Your task to perform on an android device: toggle improve location accuracy Image 0: 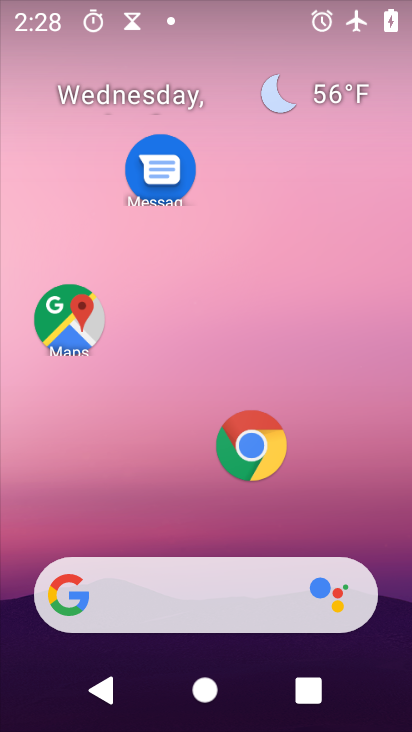
Step 0: drag from (202, 521) to (292, 30)
Your task to perform on an android device: toggle improve location accuracy Image 1: 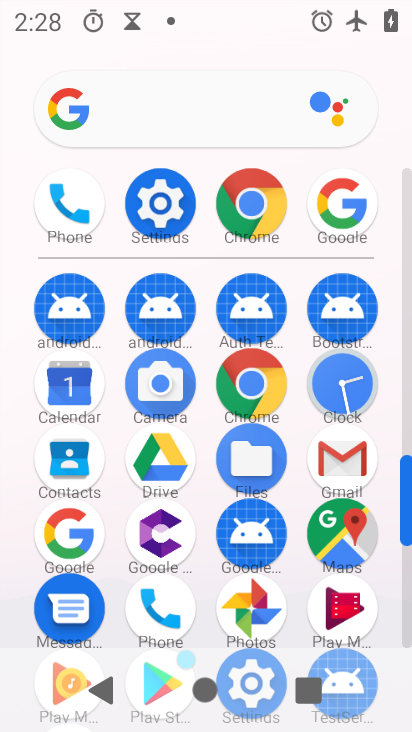
Step 1: drag from (202, 262) to (222, 109)
Your task to perform on an android device: toggle improve location accuracy Image 2: 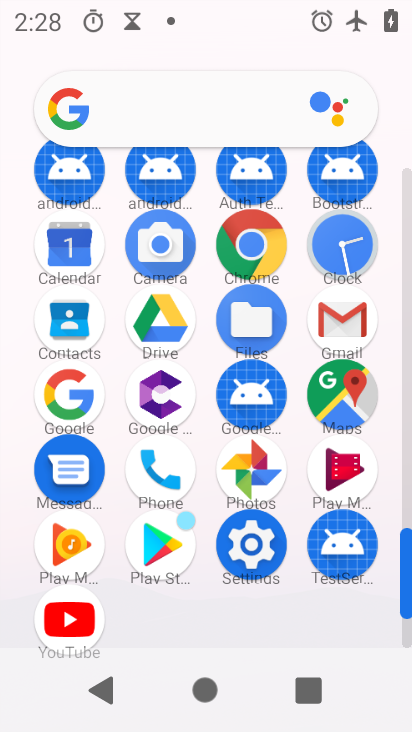
Step 2: click (252, 567)
Your task to perform on an android device: toggle improve location accuracy Image 3: 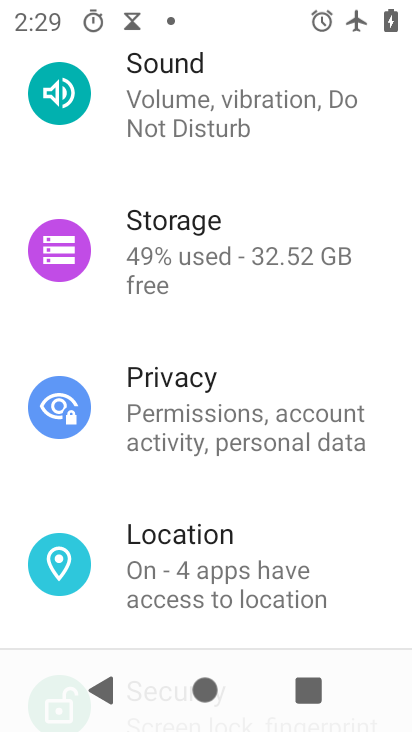
Step 3: click (210, 556)
Your task to perform on an android device: toggle improve location accuracy Image 4: 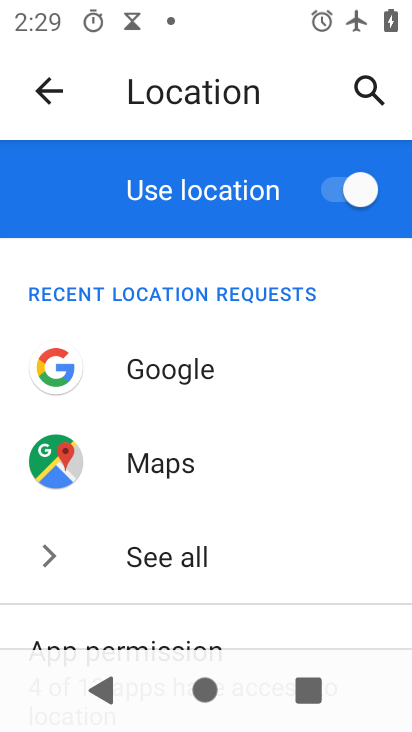
Step 4: drag from (254, 492) to (276, 106)
Your task to perform on an android device: toggle improve location accuracy Image 5: 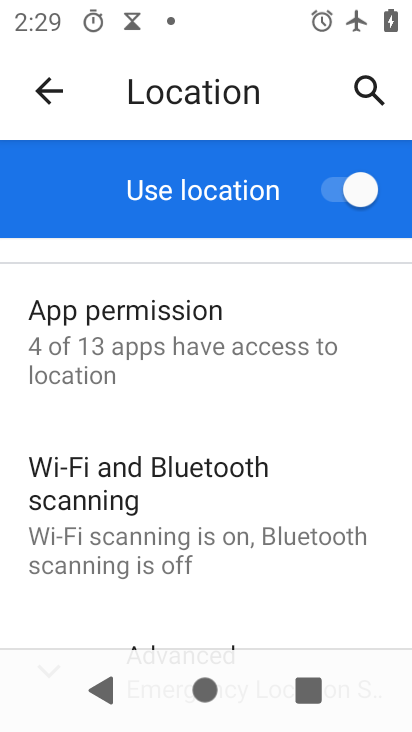
Step 5: drag from (226, 570) to (275, 145)
Your task to perform on an android device: toggle improve location accuracy Image 6: 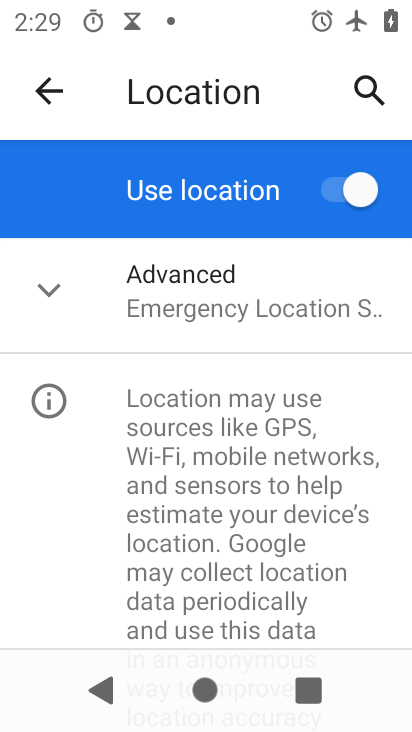
Step 6: click (174, 302)
Your task to perform on an android device: toggle improve location accuracy Image 7: 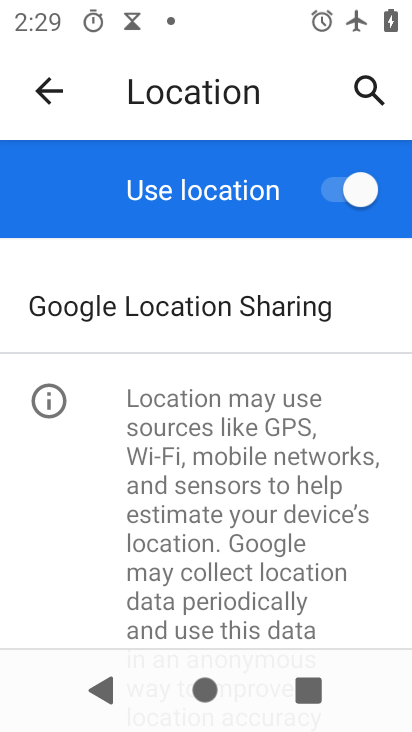
Step 7: drag from (179, 478) to (219, 139)
Your task to perform on an android device: toggle improve location accuracy Image 8: 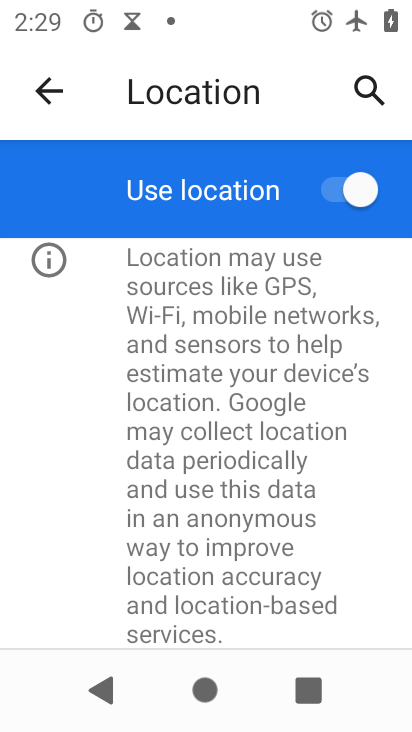
Step 8: drag from (200, 548) to (209, 171)
Your task to perform on an android device: toggle improve location accuracy Image 9: 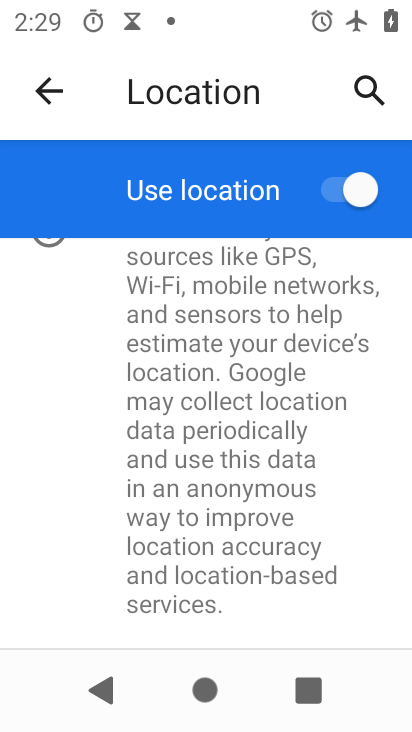
Step 9: drag from (154, 562) to (207, 185)
Your task to perform on an android device: toggle improve location accuracy Image 10: 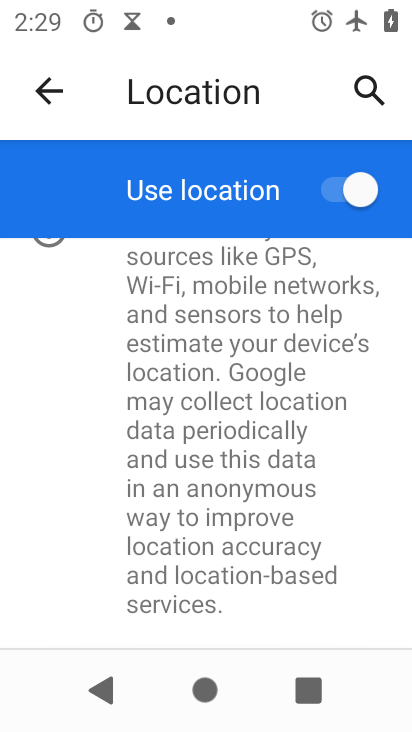
Step 10: drag from (264, 322) to (260, 673)
Your task to perform on an android device: toggle improve location accuracy Image 11: 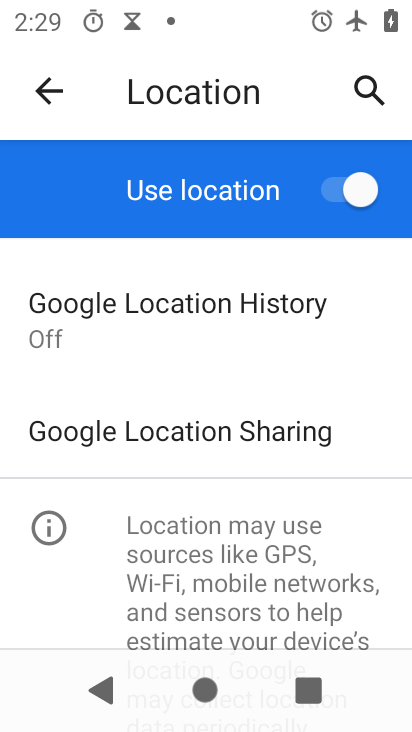
Step 11: drag from (239, 422) to (239, 645)
Your task to perform on an android device: toggle improve location accuracy Image 12: 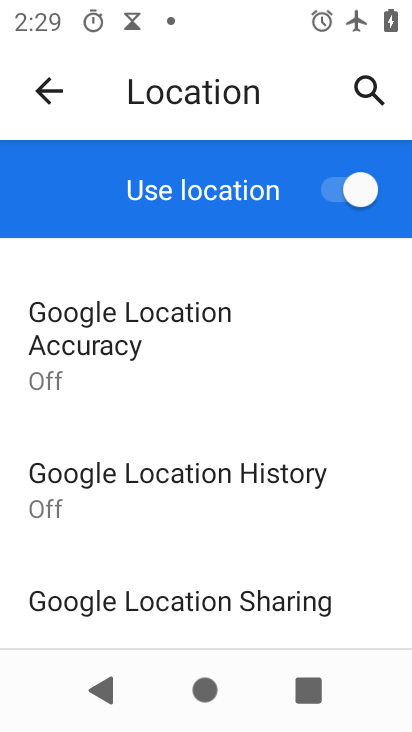
Step 12: click (181, 341)
Your task to perform on an android device: toggle improve location accuracy Image 13: 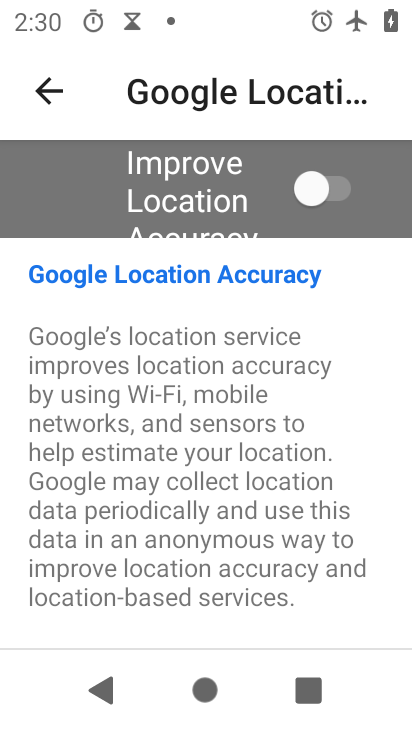
Step 13: click (301, 180)
Your task to perform on an android device: toggle improve location accuracy Image 14: 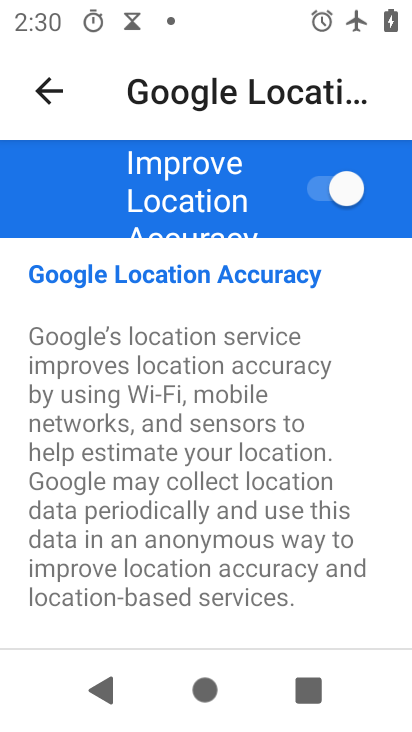
Step 14: task complete